Your task to perform on an android device: Open display settings Image 0: 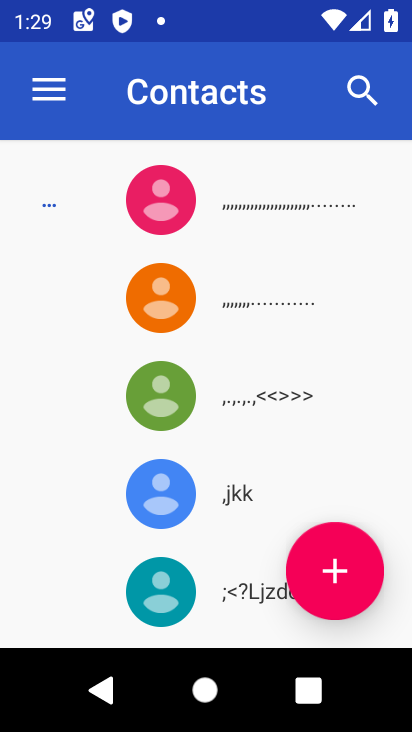
Step 0: press home button
Your task to perform on an android device: Open display settings Image 1: 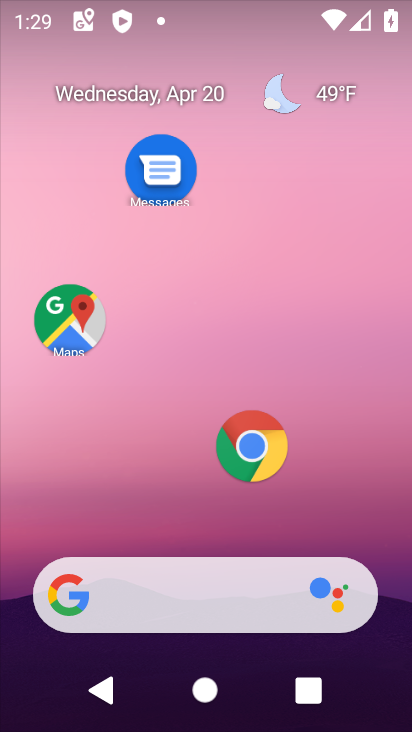
Step 1: drag from (202, 515) to (202, 47)
Your task to perform on an android device: Open display settings Image 2: 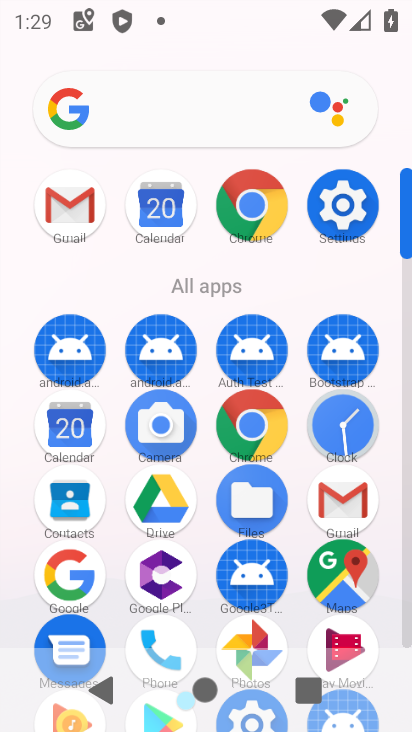
Step 2: click (342, 199)
Your task to perform on an android device: Open display settings Image 3: 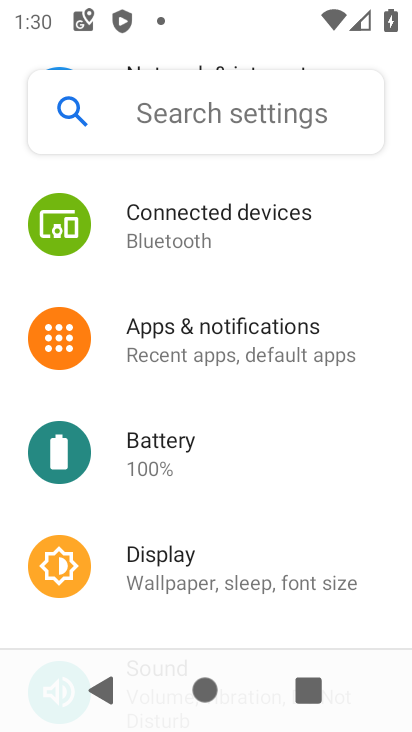
Step 3: click (209, 564)
Your task to perform on an android device: Open display settings Image 4: 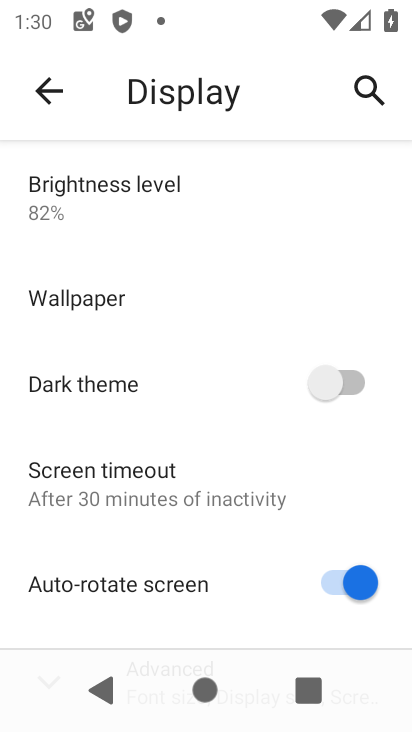
Step 4: drag from (233, 584) to (229, 234)
Your task to perform on an android device: Open display settings Image 5: 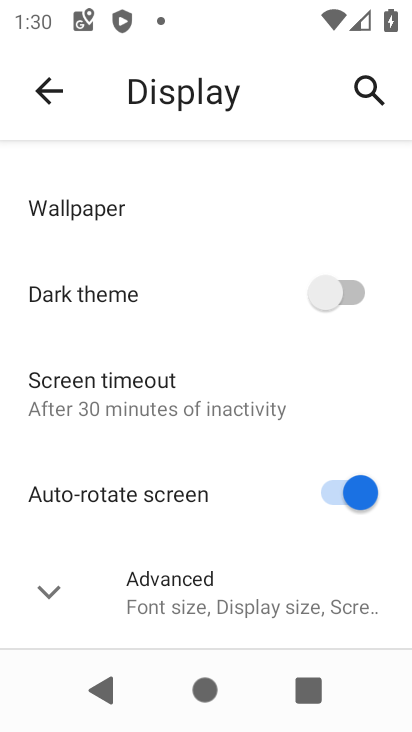
Step 5: click (48, 581)
Your task to perform on an android device: Open display settings Image 6: 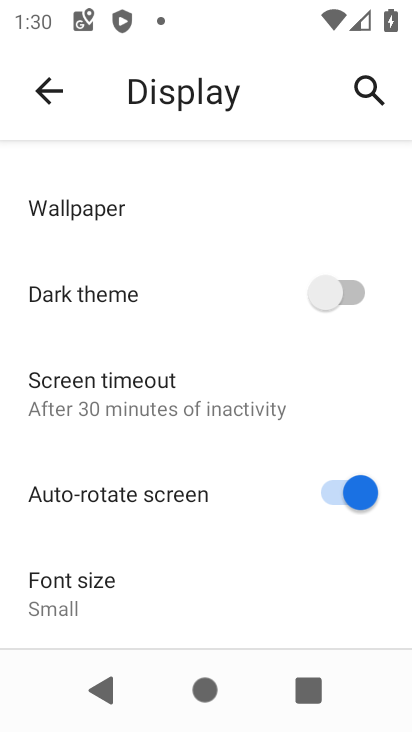
Step 6: task complete